Your task to perform on an android device: add a label to a message in the gmail app Image 0: 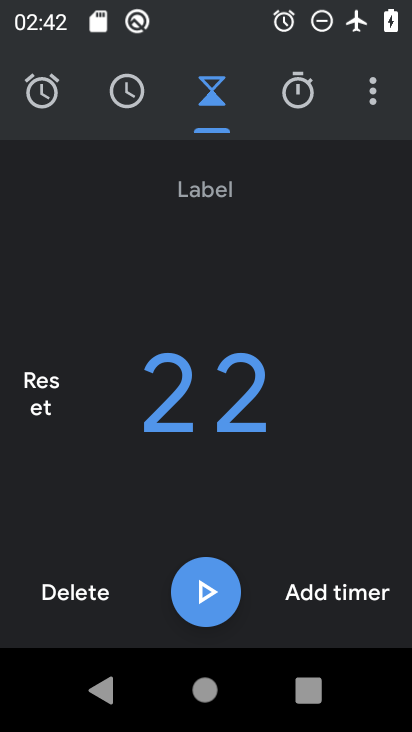
Step 0: press home button
Your task to perform on an android device: add a label to a message in the gmail app Image 1: 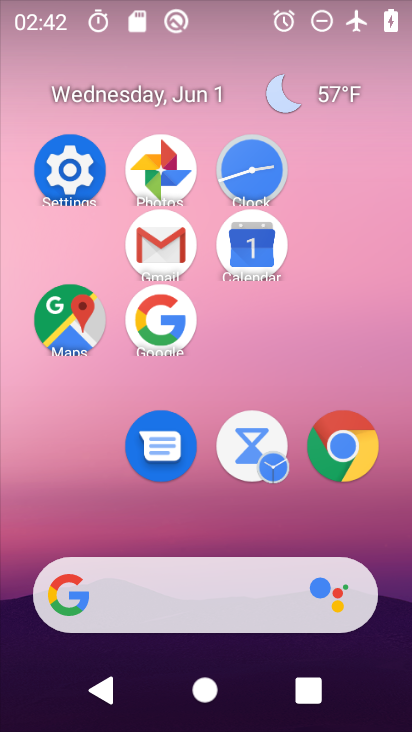
Step 1: click (151, 244)
Your task to perform on an android device: add a label to a message in the gmail app Image 2: 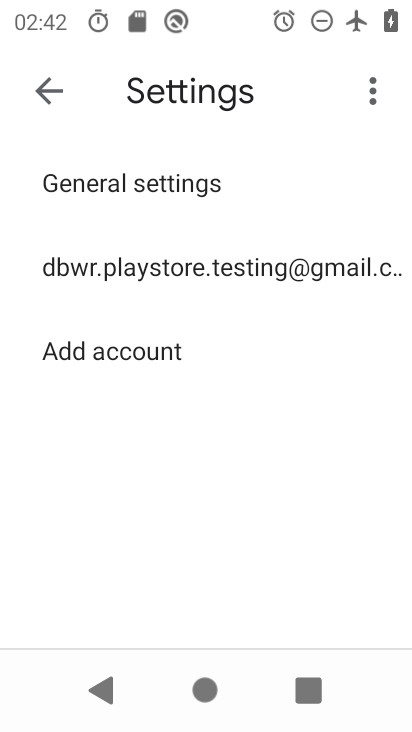
Step 2: click (44, 92)
Your task to perform on an android device: add a label to a message in the gmail app Image 3: 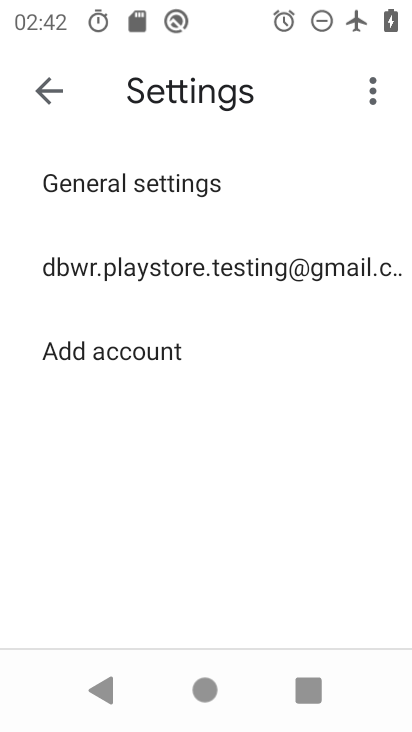
Step 3: click (44, 92)
Your task to perform on an android device: add a label to a message in the gmail app Image 4: 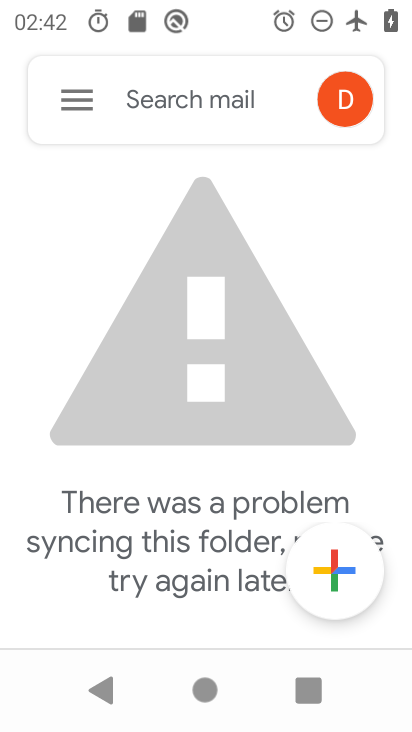
Step 4: click (55, 101)
Your task to perform on an android device: add a label to a message in the gmail app Image 5: 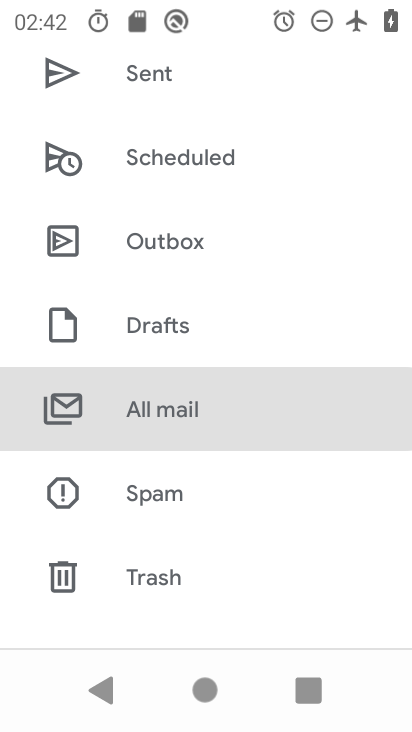
Step 5: click (200, 396)
Your task to perform on an android device: add a label to a message in the gmail app Image 6: 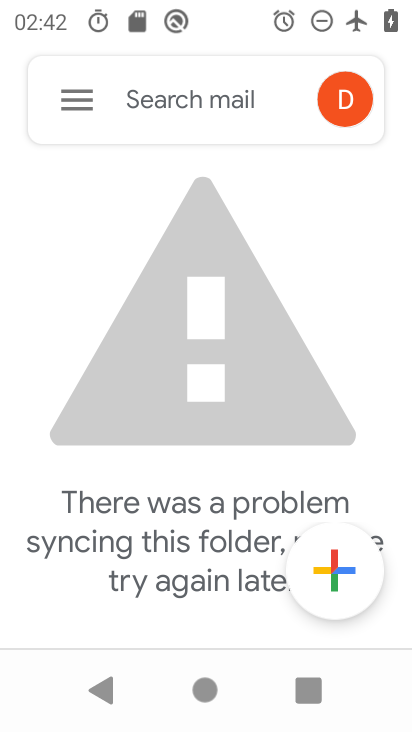
Step 6: task complete